Your task to perform on an android device: Open the stopwatch Image 0: 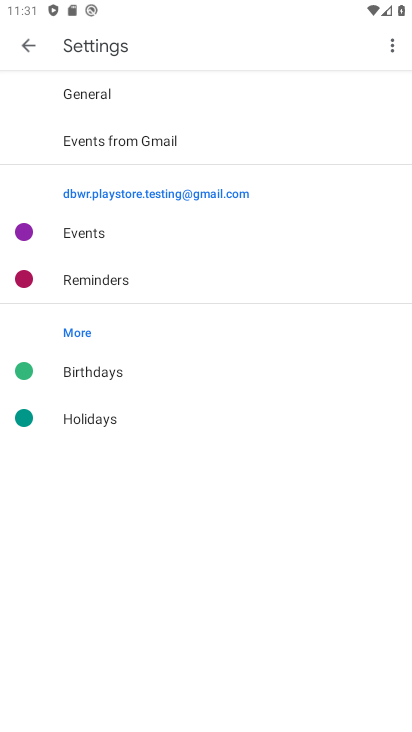
Step 0: press home button
Your task to perform on an android device: Open the stopwatch Image 1: 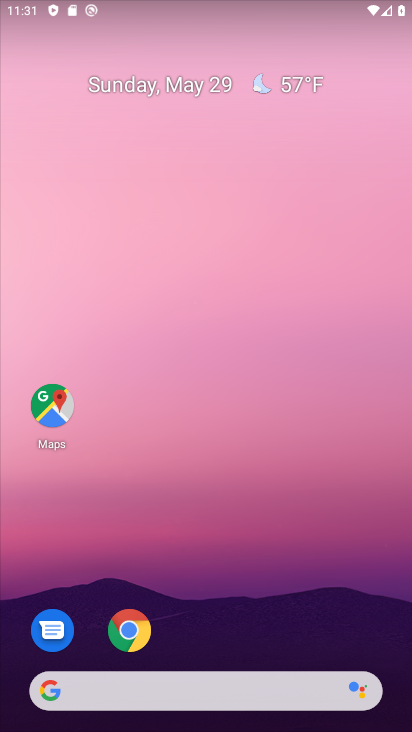
Step 1: drag from (240, 611) to (184, 161)
Your task to perform on an android device: Open the stopwatch Image 2: 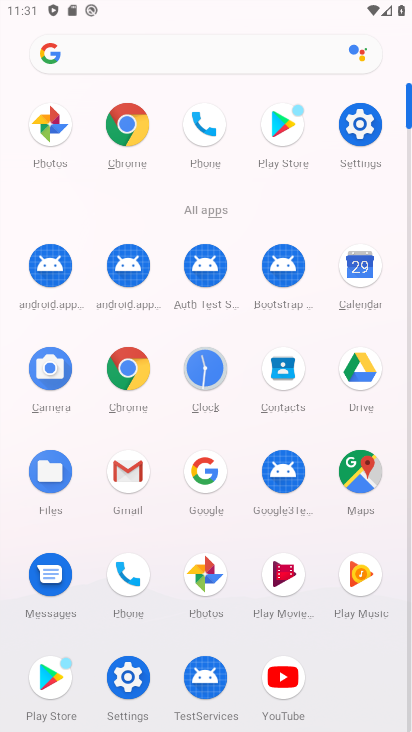
Step 2: click (217, 371)
Your task to perform on an android device: Open the stopwatch Image 3: 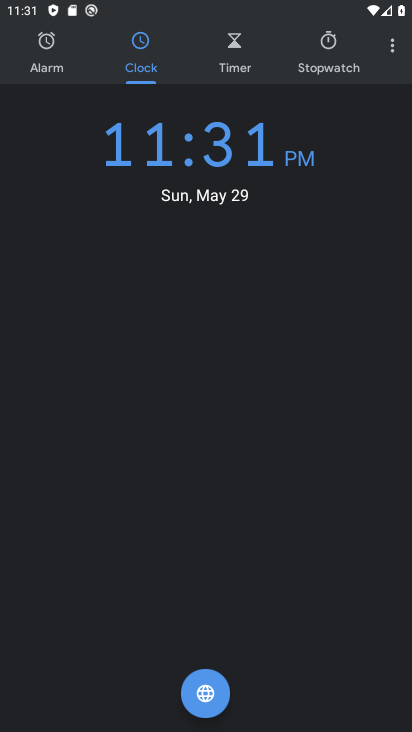
Step 3: click (324, 52)
Your task to perform on an android device: Open the stopwatch Image 4: 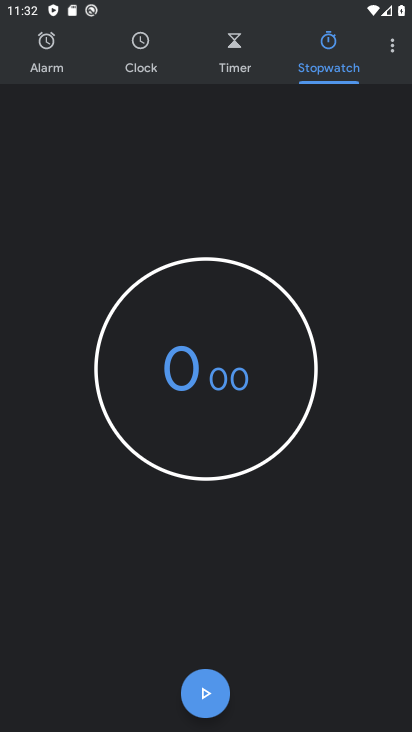
Step 4: click (203, 700)
Your task to perform on an android device: Open the stopwatch Image 5: 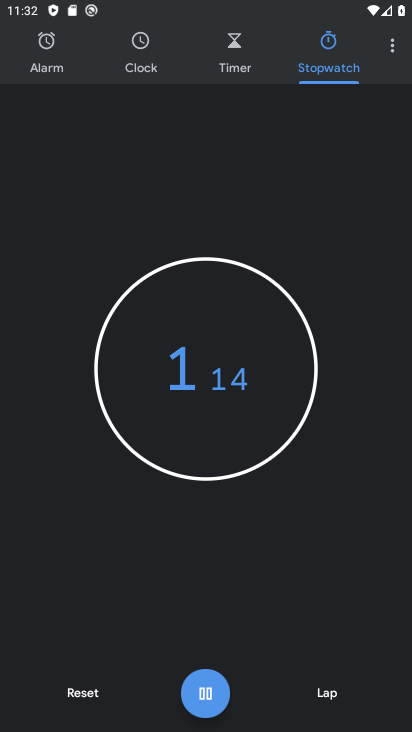
Step 5: click (202, 697)
Your task to perform on an android device: Open the stopwatch Image 6: 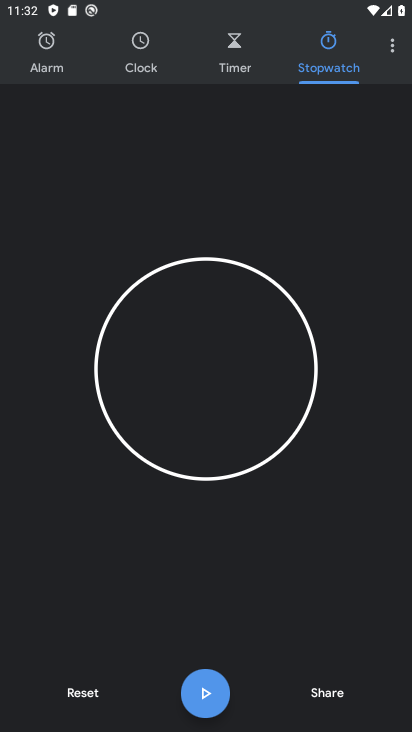
Step 6: task complete